Your task to perform on an android device: uninstall "Mercado Libre" Image 0: 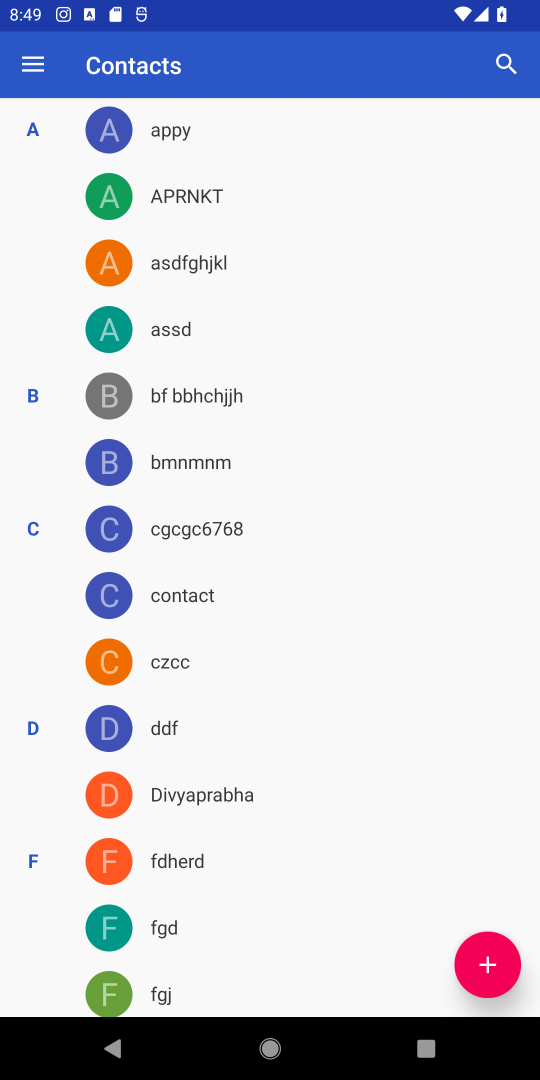
Step 0: press home button
Your task to perform on an android device: uninstall "Mercado Libre" Image 1: 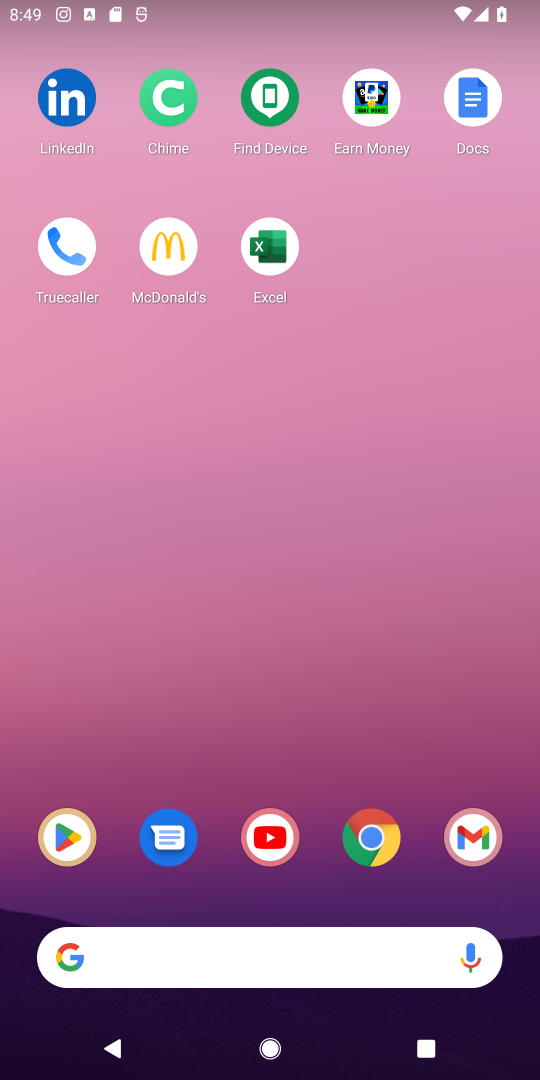
Step 1: click (65, 845)
Your task to perform on an android device: uninstall "Mercado Libre" Image 2: 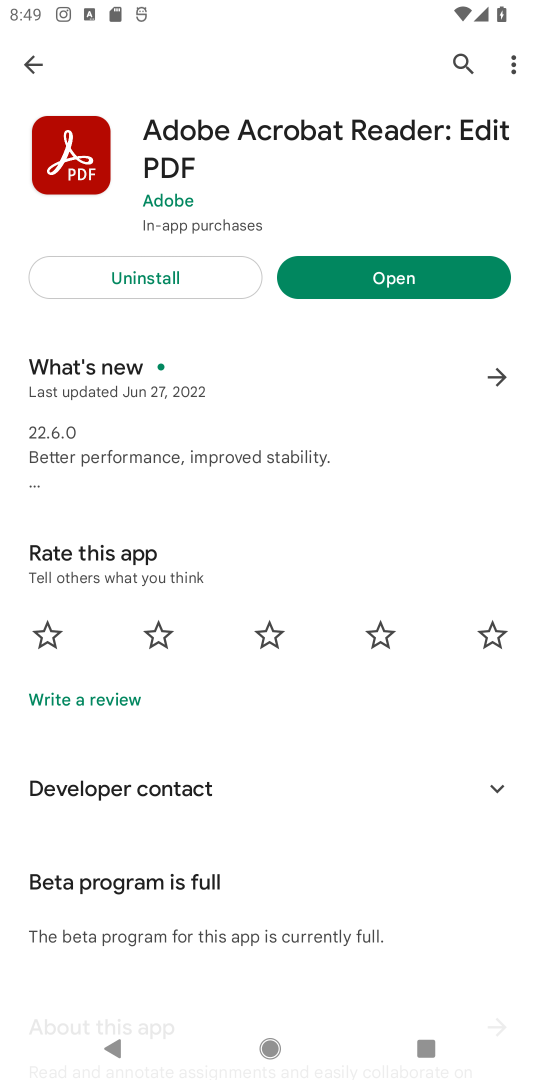
Step 2: click (456, 56)
Your task to perform on an android device: uninstall "Mercado Libre" Image 3: 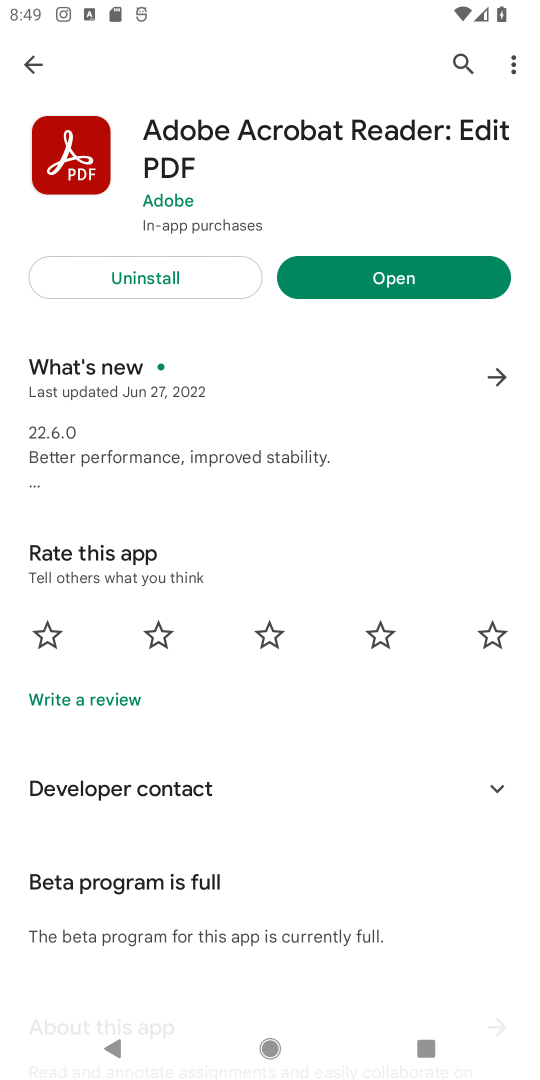
Step 3: click (463, 62)
Your task to perform on an android device: uninstall "Mercado Libre" Image 4: 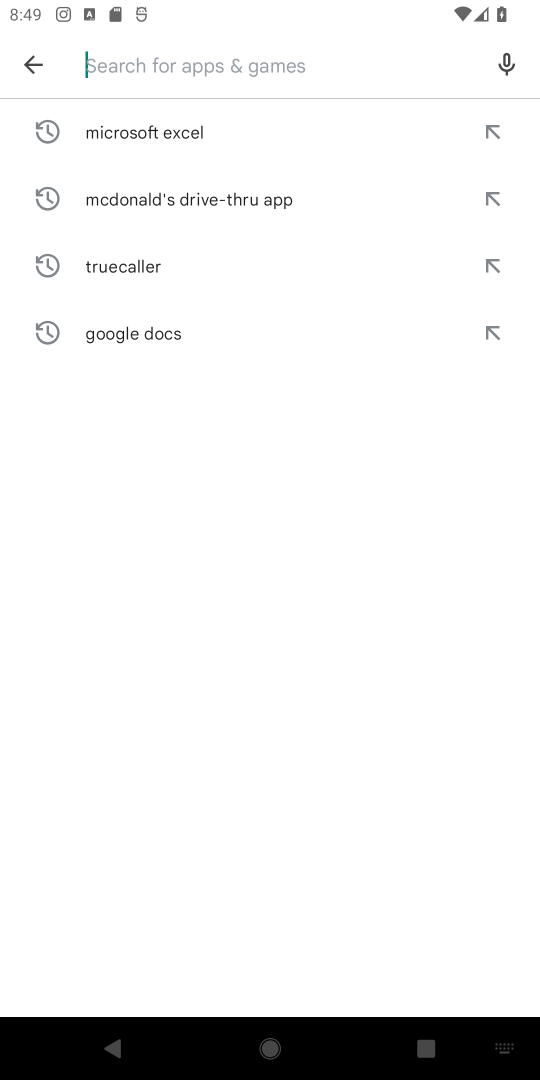
Step 4: type "Mercado Libre"
Your task to perform on an android device: uninstall "Mercado Libre" Image 5: 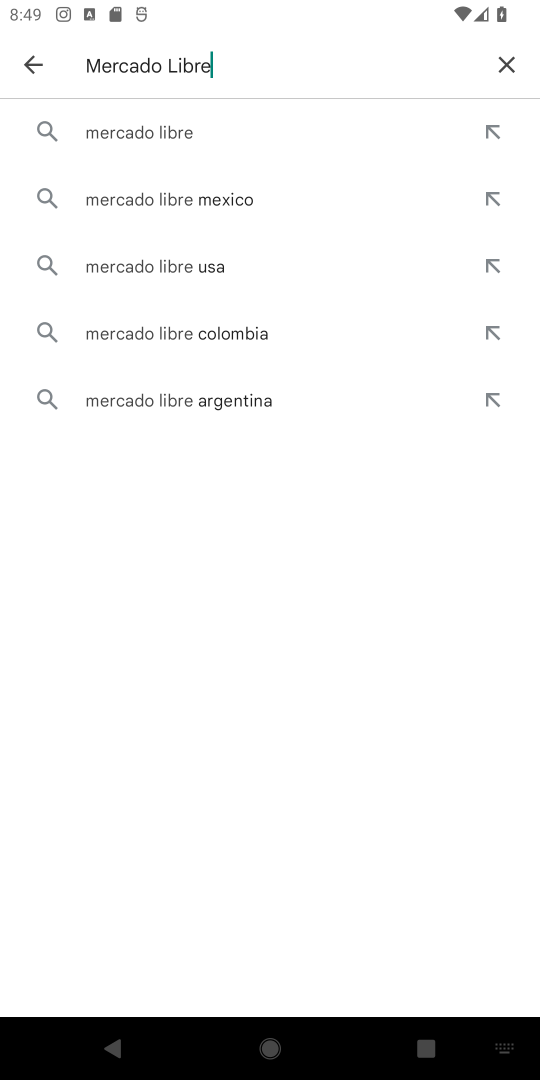
Step 5: click (173, 127)
Your task to perform on an android device: uninstall "Mercado Libre" Image 6: 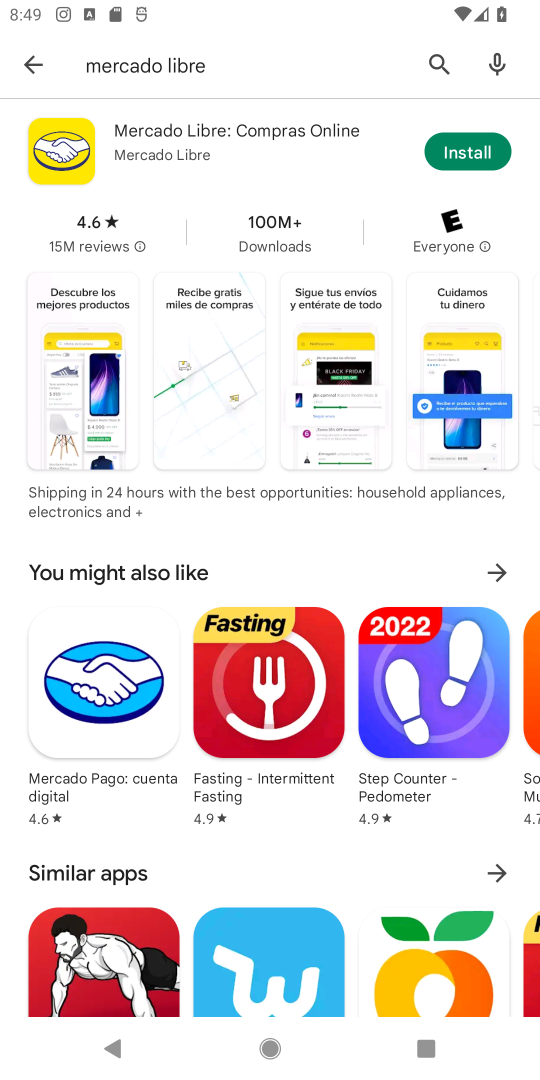
Step 6: task complete